Your task to perform on an android device: snooze an email in the gmail app Image 0: 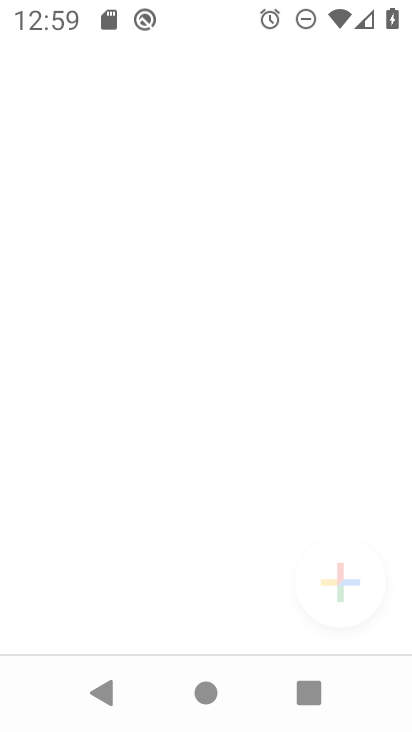
Step 0: click (245, 442)
Your task to perform on an android device: snooze an email in the gmail app Image 1: 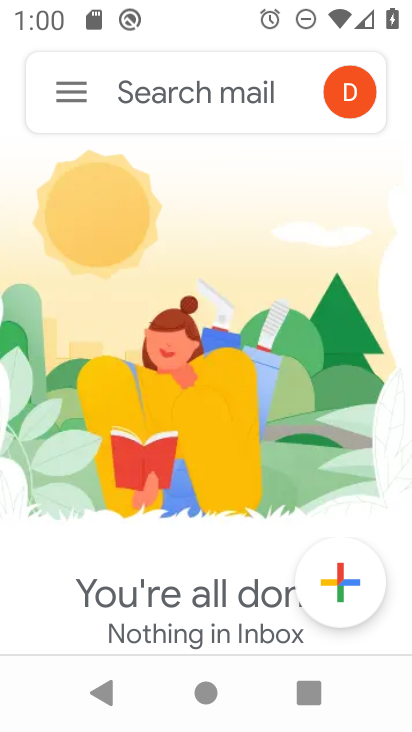
Step 1: task complete